Your task to perform on an android device: set the stopwatch Image 0: 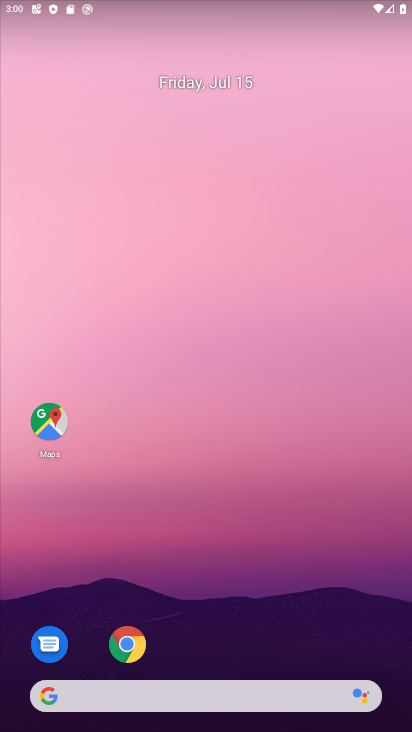
Step 0: drag from (206, 617) to (239, 0)
Your task to perform on an android device: set the stopwatch Image 1: 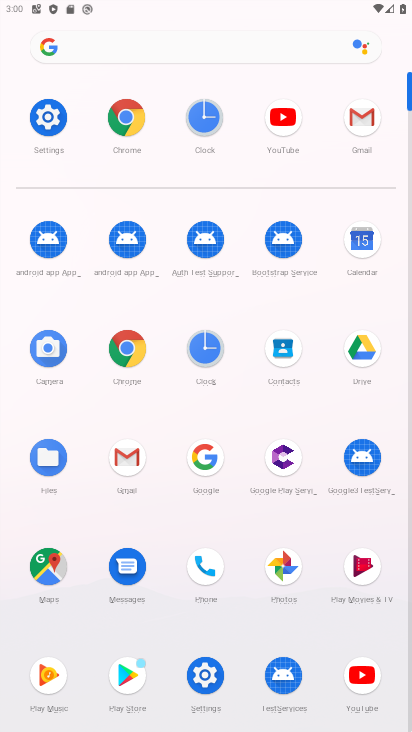
Step 1: click (198, 352)
Your task to perform on an android device: set the stopwatch Image 2: 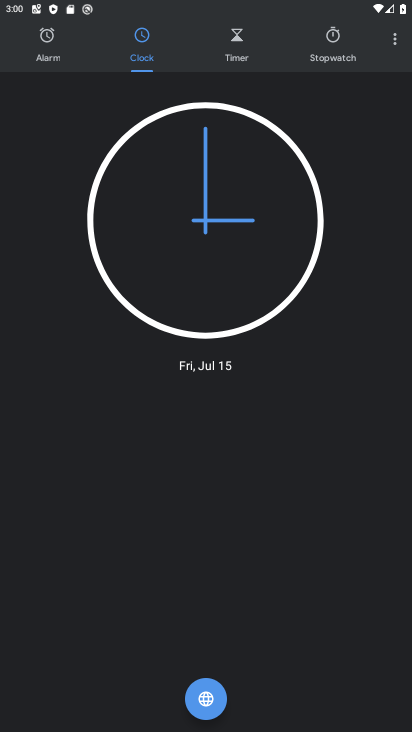
Step 2: click (330, 34)
Your task to perform on an android device: set the stopwatch Image 3: 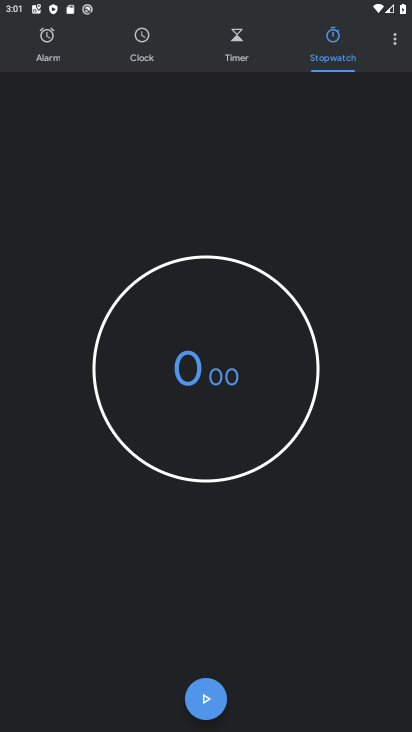
Step 3: click (213, 387)
Your task to perform on an android device: set the stopwatch Image 4: 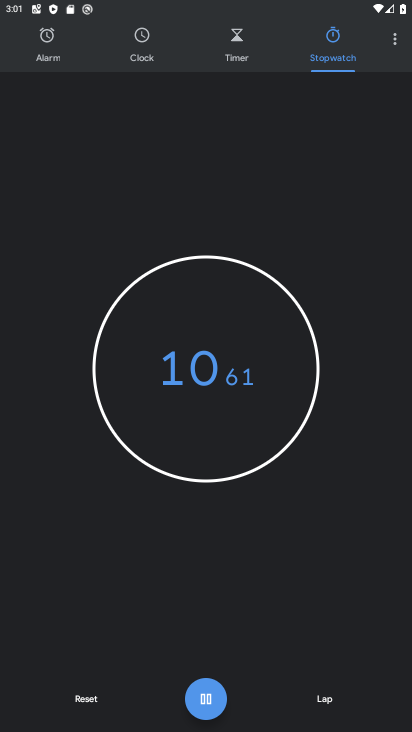
Step 4: click (202, 464)
Your task to perform on an android device: set the stopwatch Image 5: 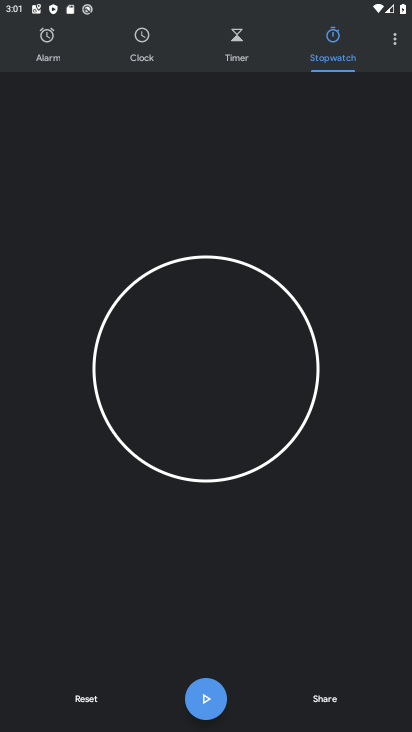
Step 5: task complete